Your task to perform on an android device: Show me popular games on the Play Store Image 0: 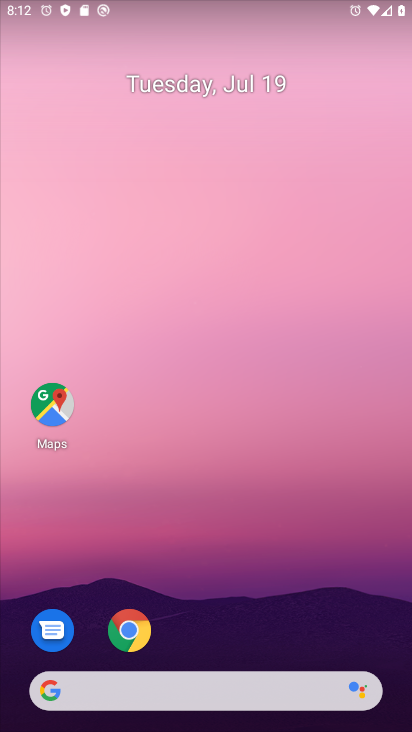
Step 0: drag from (225, 591) to (218, 400)
Your task to perform on an android device: Show me popular games on the Play Store Image 1: 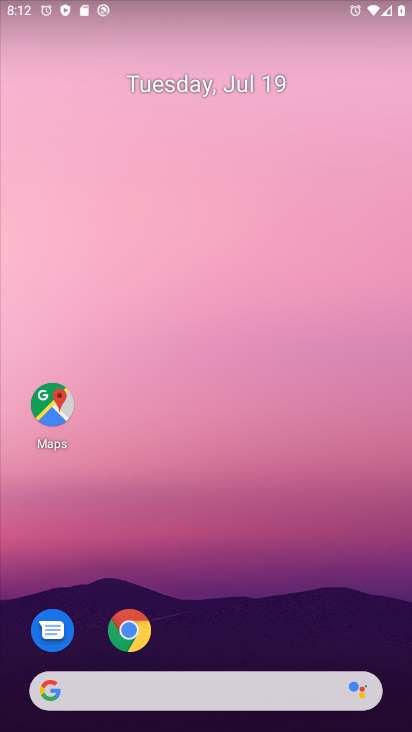
Step 1: drag from (234, 533) to (264, 126)
Your task to perform on an android device: Show me popular games on the Play Store Image 2: 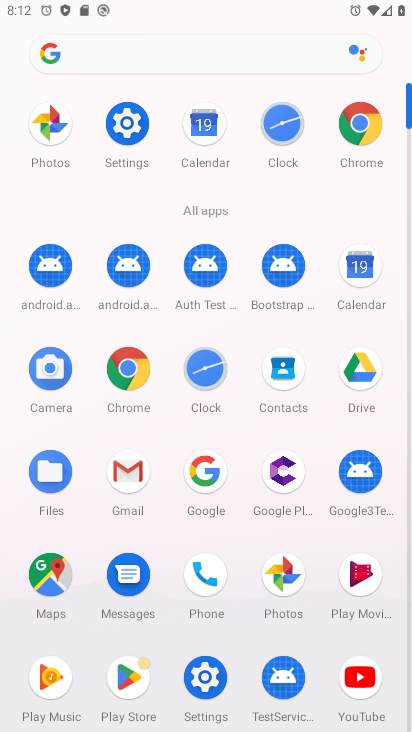
Step 2: click (130, 678)
Your task to perform on an android device: Show me popular games on the Play Store Image 3: 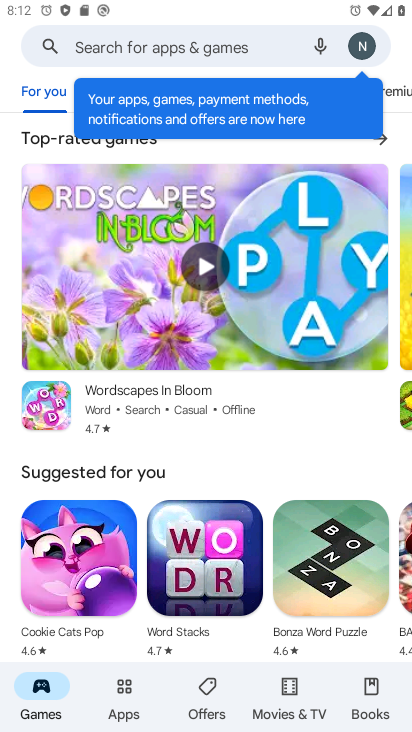
Step 3: task complete